Your task to perform on an android device: Toggle the flashlight Image 0: 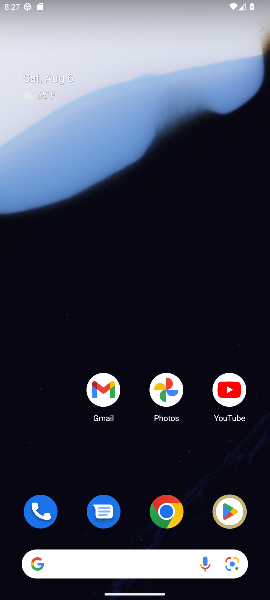
Step 0: press home button
Your task to perform on an android device: Toggle the flashlight Image 1: 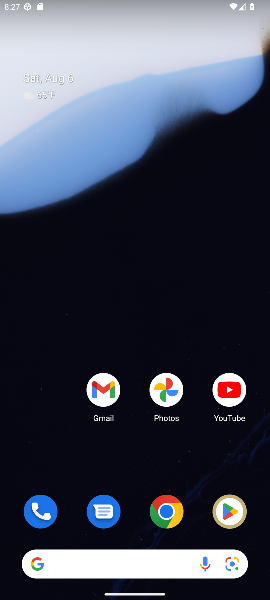
Step 1: task complete